Your task to perform on an android device: change the clock display to analog Image 0: 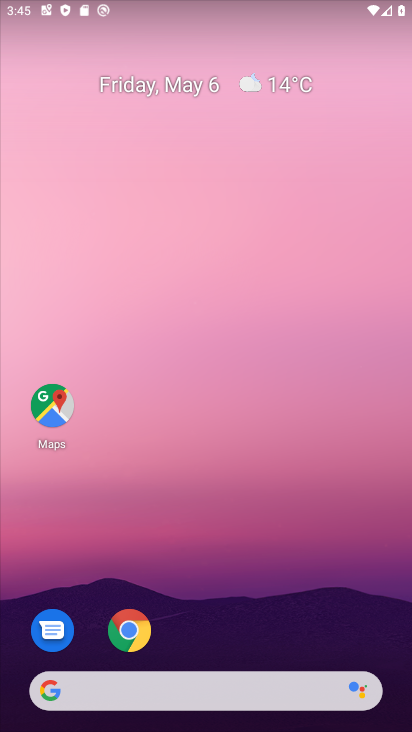
Step 0: drag from (231, 571) to (286, 103)
Your task to perform on an android device: change the clock display to analog Image 1: 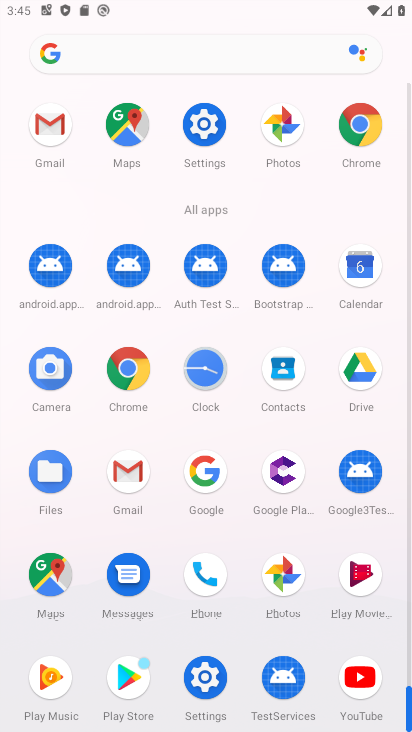
Step 1: click (215, 357)
Your task to perform on an android device: change the clock display to analog Image 2: 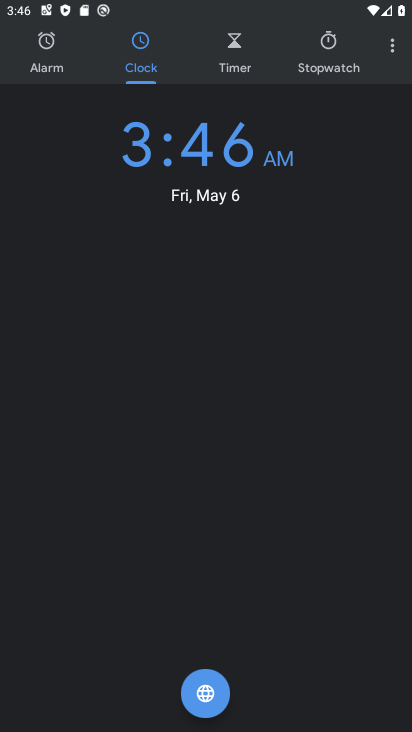
Step 2: click (382, 58)
Your task to perform on an android device: change the clock display to analog Image 3: 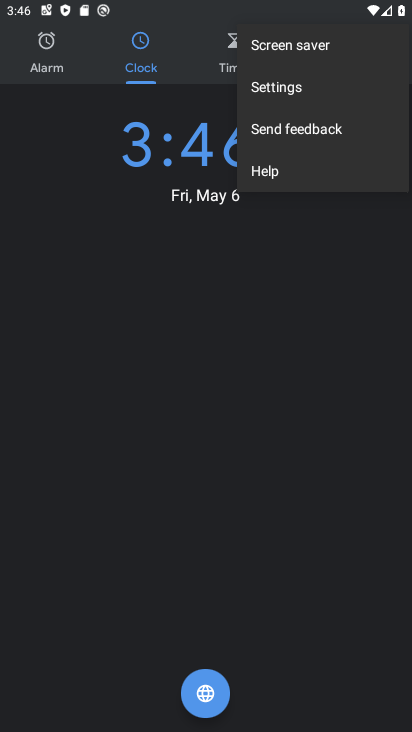
Step 3: click (313, 85)
Your task to perform on an android device: change the clock display to analog Image 4: 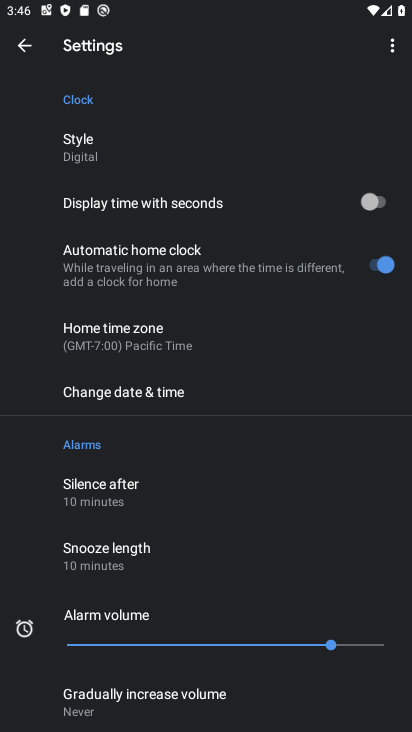
Step 4: click (135, 160)
Your task to perform on an android device: change the clock display to analog Image 5: 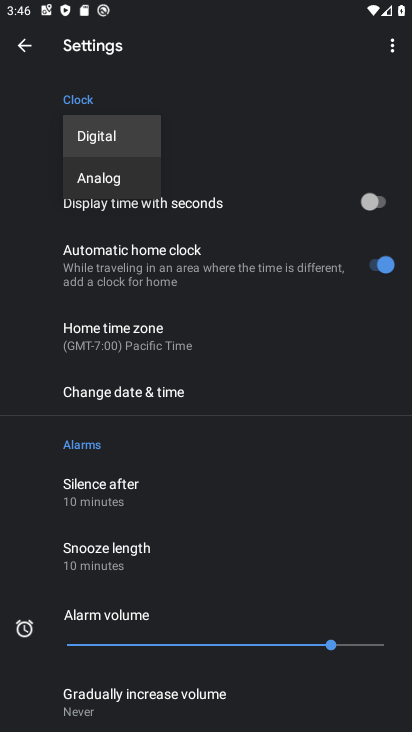
Step 5: click (124, 173)
Your task to perform on an android device: change the clock display to analog Image 6: 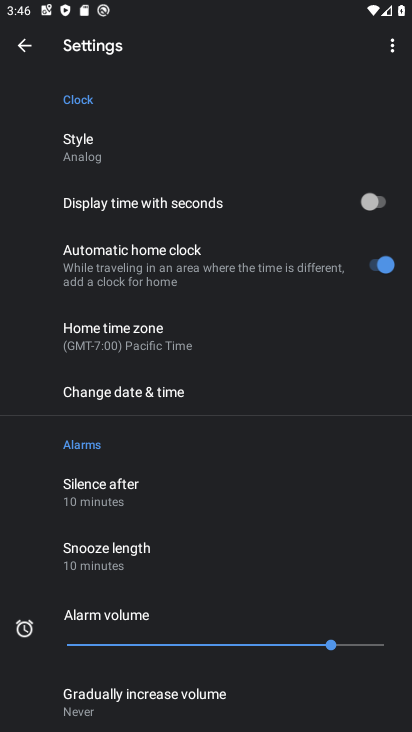
Step 6: task complete